Your task to perform on an android device: turn off location Image 0: 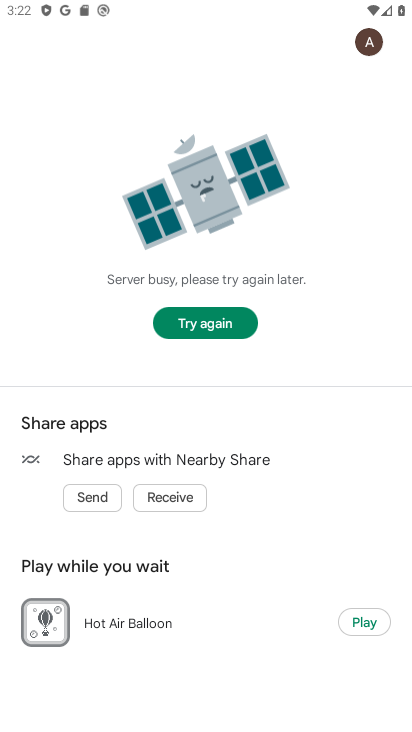
Step 0: press home button
Your task to perform on an android device: turn off location Image 1: 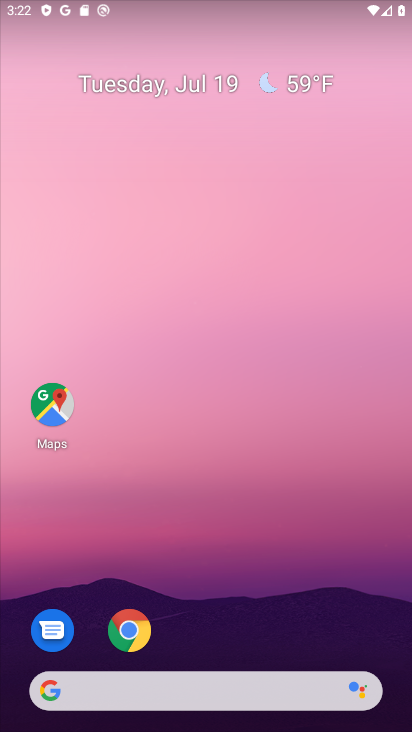
Step 1: drag from (189, 694) to (307, 210)
Your task to perform on an android device: turn off location Image 2: 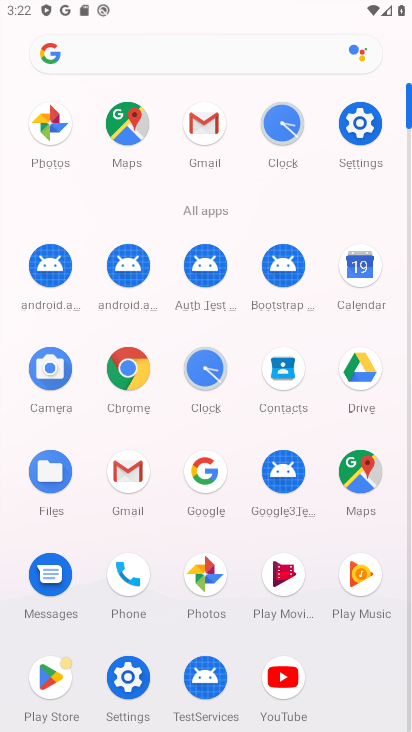
Step 2: click (121, 680)
Your task to perform on an android device: turn off location Image 3: 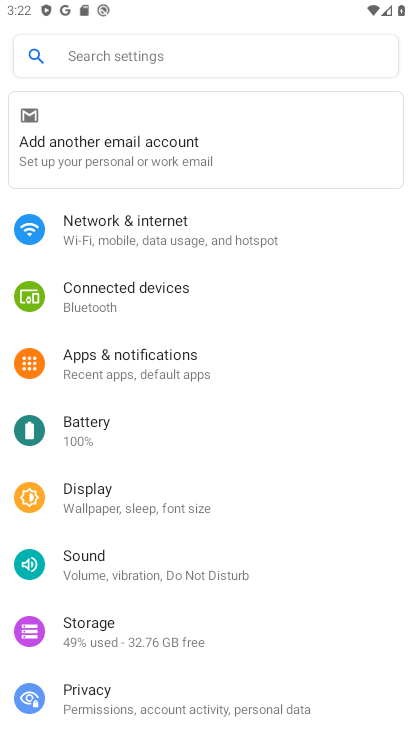
Step 3: drag from (102, 681) to (204, 419)
Your task to perform on an android device: turn off location Image 4: 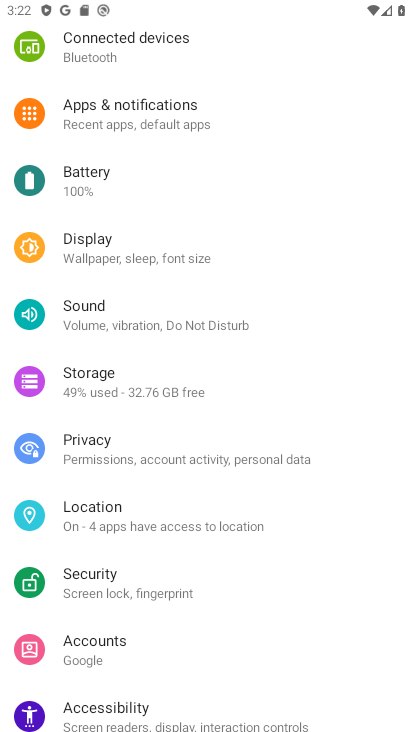
Step 4: drag from (94, 685) to (179, 644)
Your task to perform on an android device: turn off location Image 5: 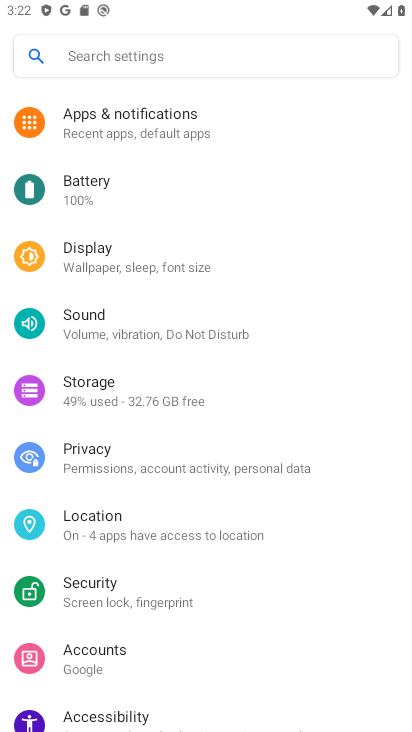
Step 5: click (131, 536)
Your task to perform on an android device: turn off location Image 6: 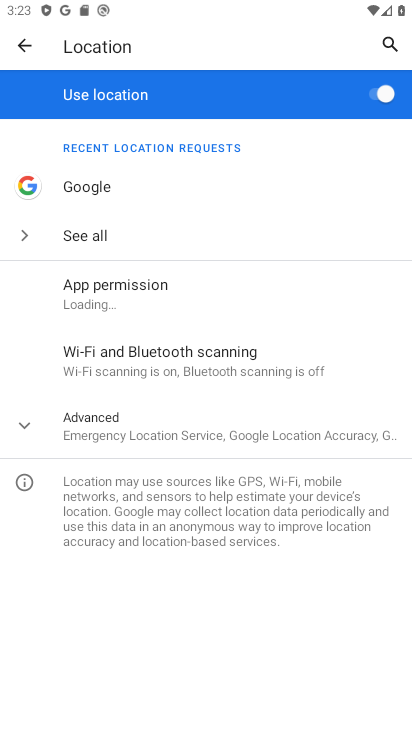
Step 6: click (385, 100)
Your task to perform on an android device: turn off location Image 7: 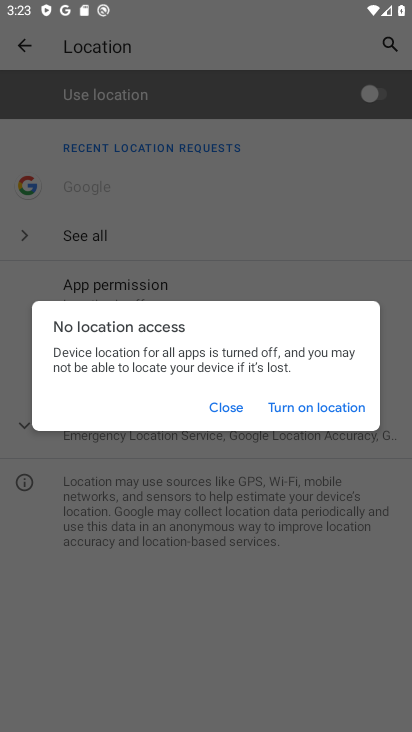
Step 7: task complete